Your task to perform on an android device: install app "Nova Launcher" Image 0: 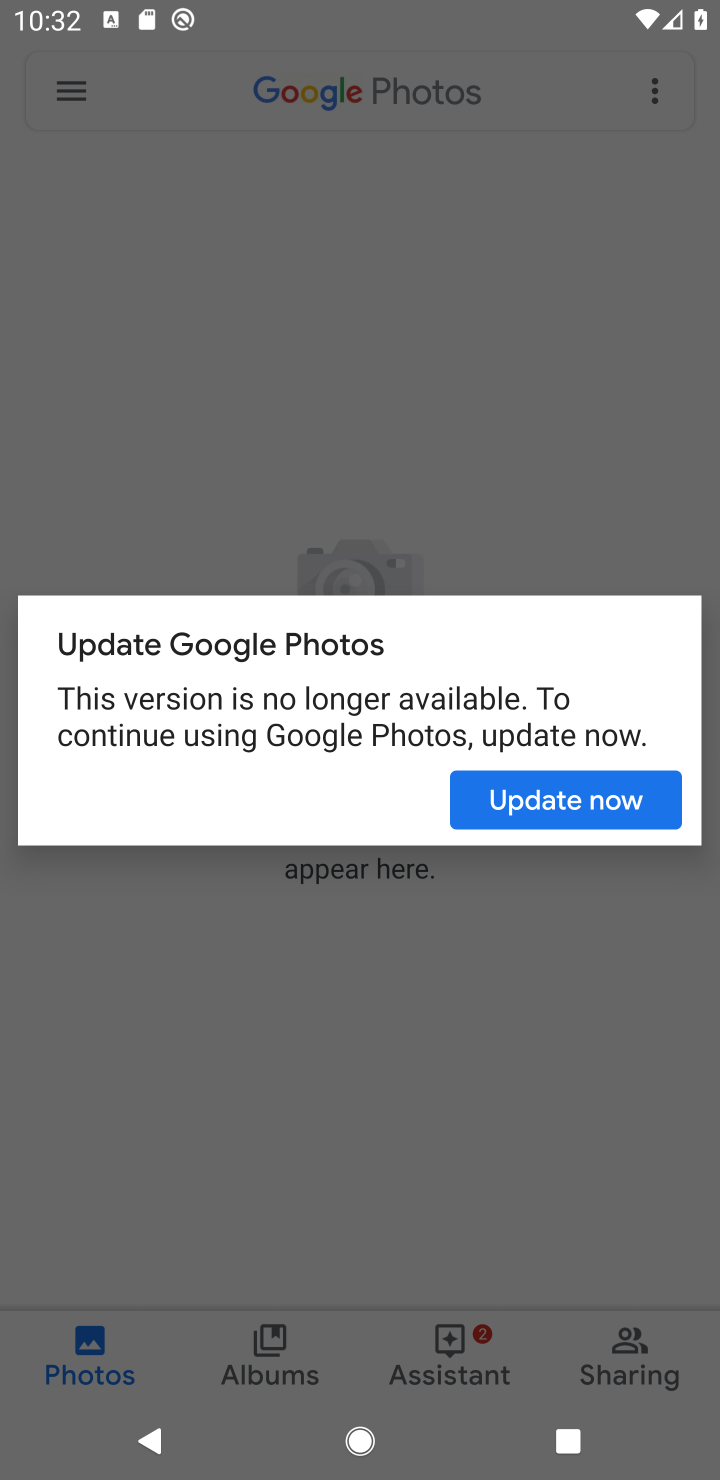
Step 0: press back button
Your task to perform on an android device: install app "Nova Launcher" Image 1: 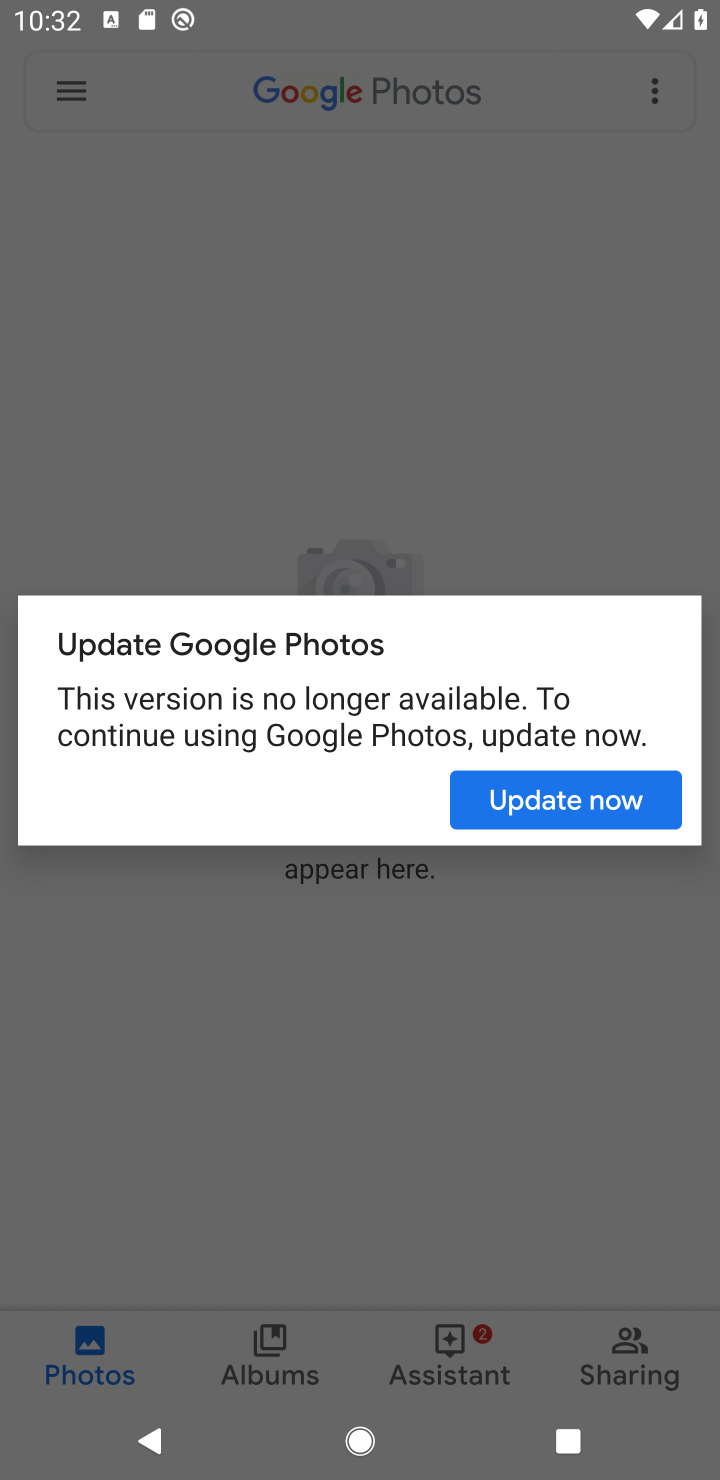
Step 1: press home button
Your task to perform on an android device: install app "Nova Launcher" Image 2: 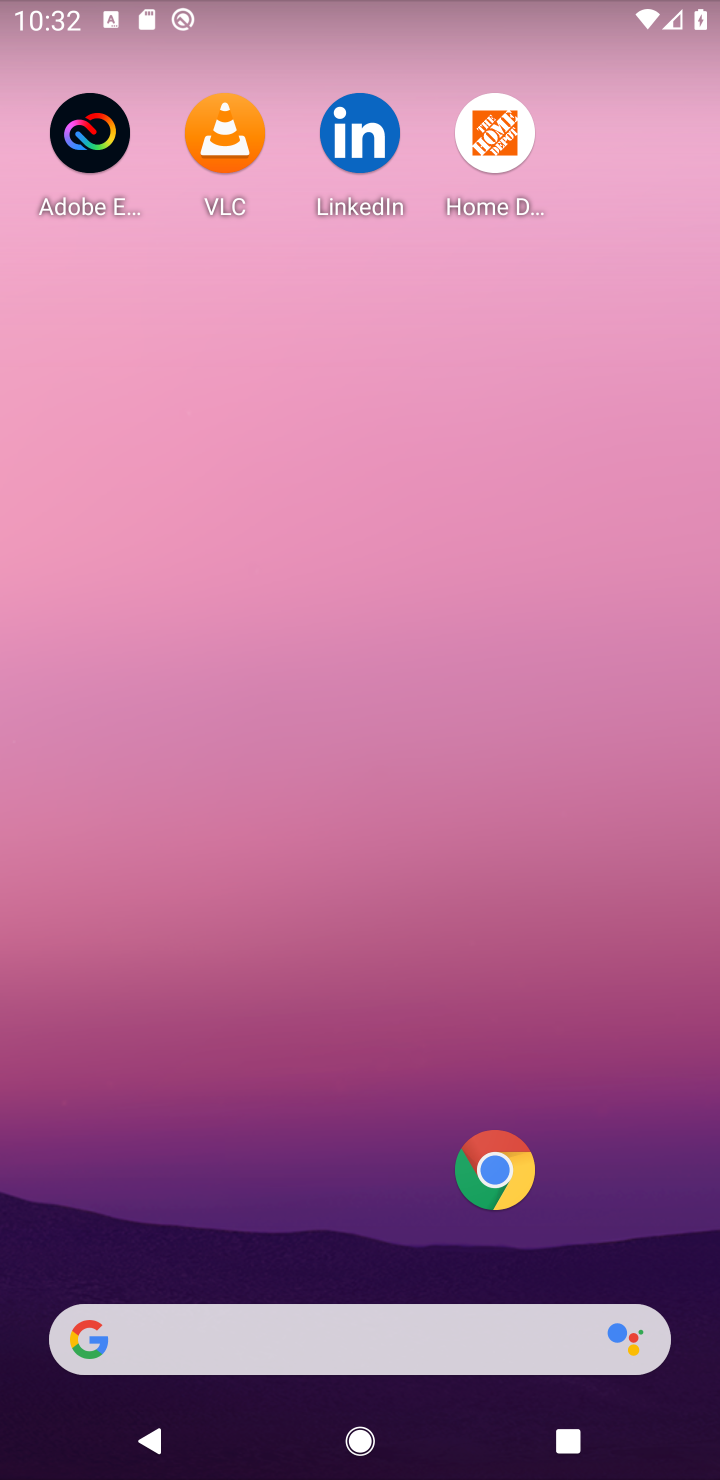
Step 2: drag from (315, 1205) to (468, 37)
Your task to perform on an android device: install app "Nova Launcher" Image 3: 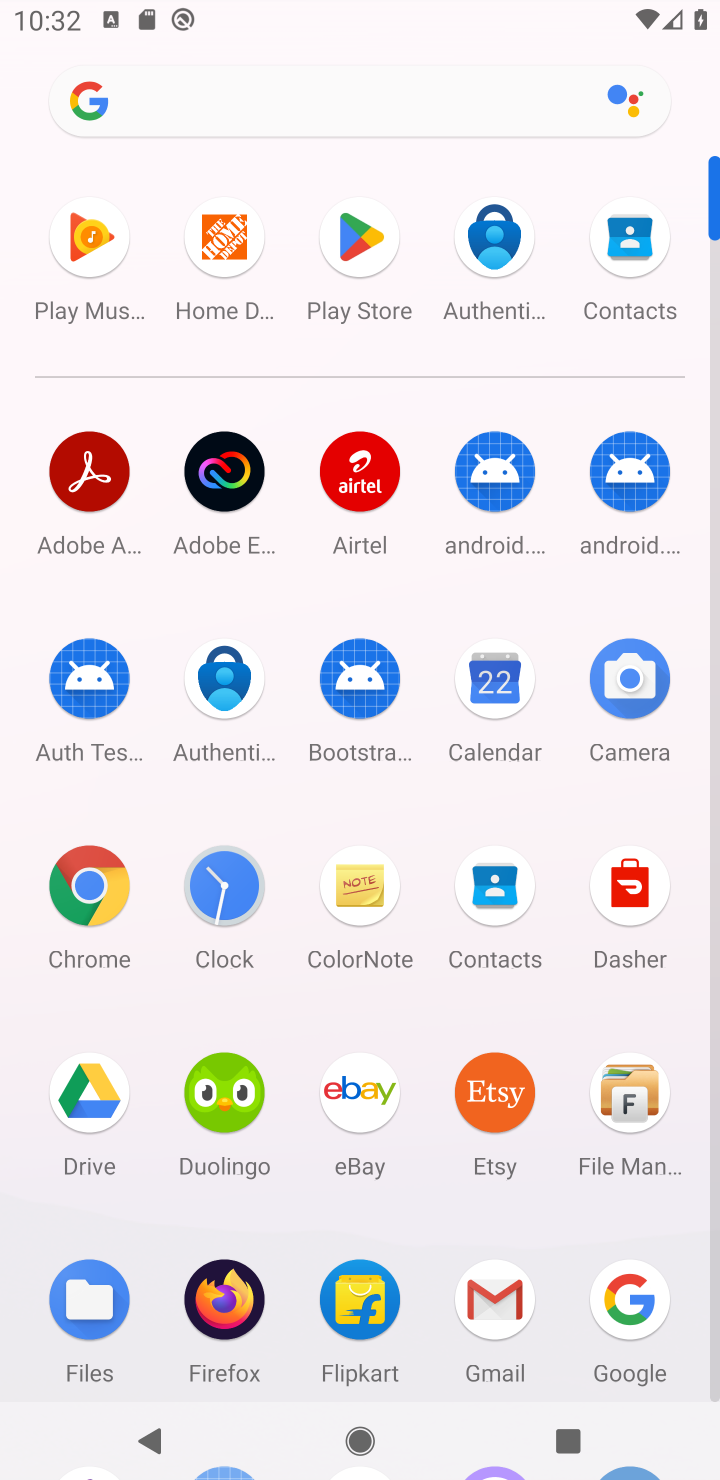
Step 3: click (335, 244)
Your task to perform on an android device: install app "Nova Launcher" Image 4: 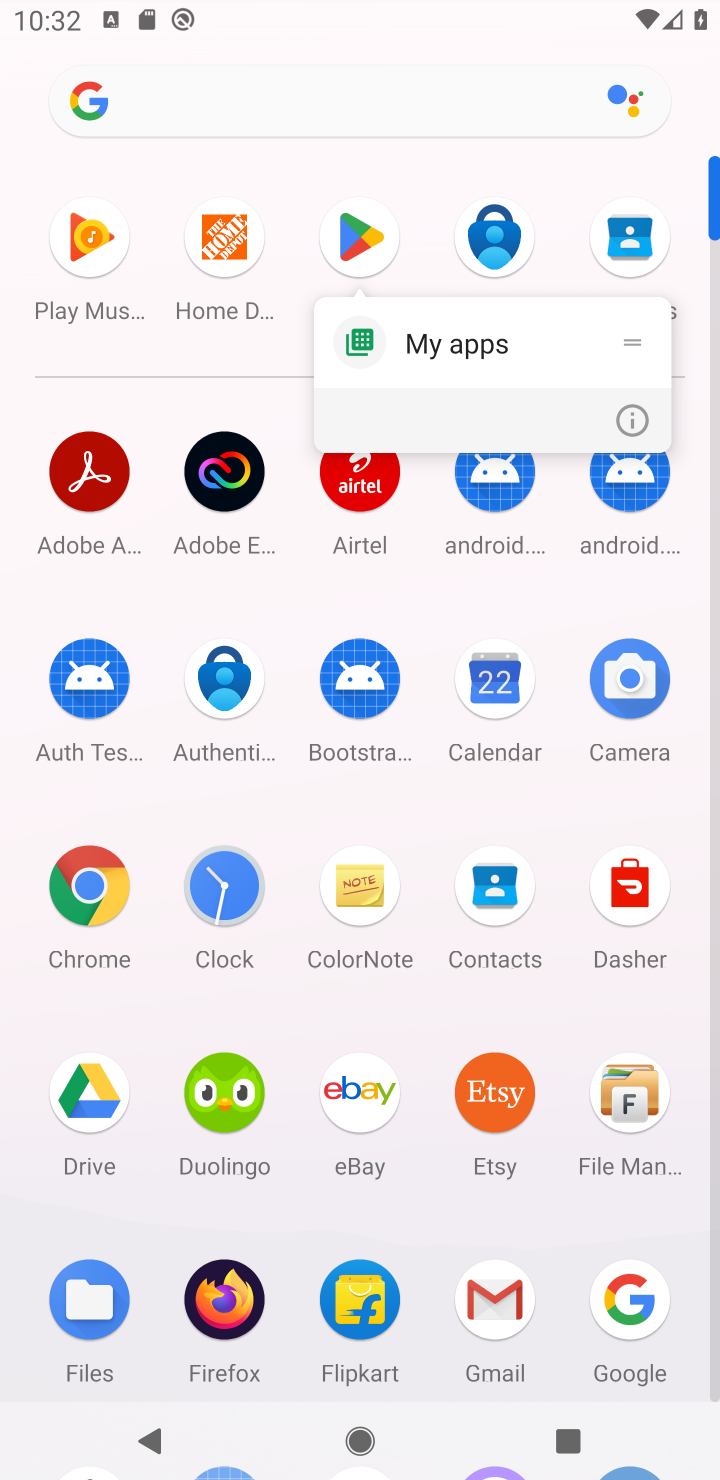
Step 4: click (361, 239)
Your task to perform on an android device: install app "Nova Launcher" Image 5: 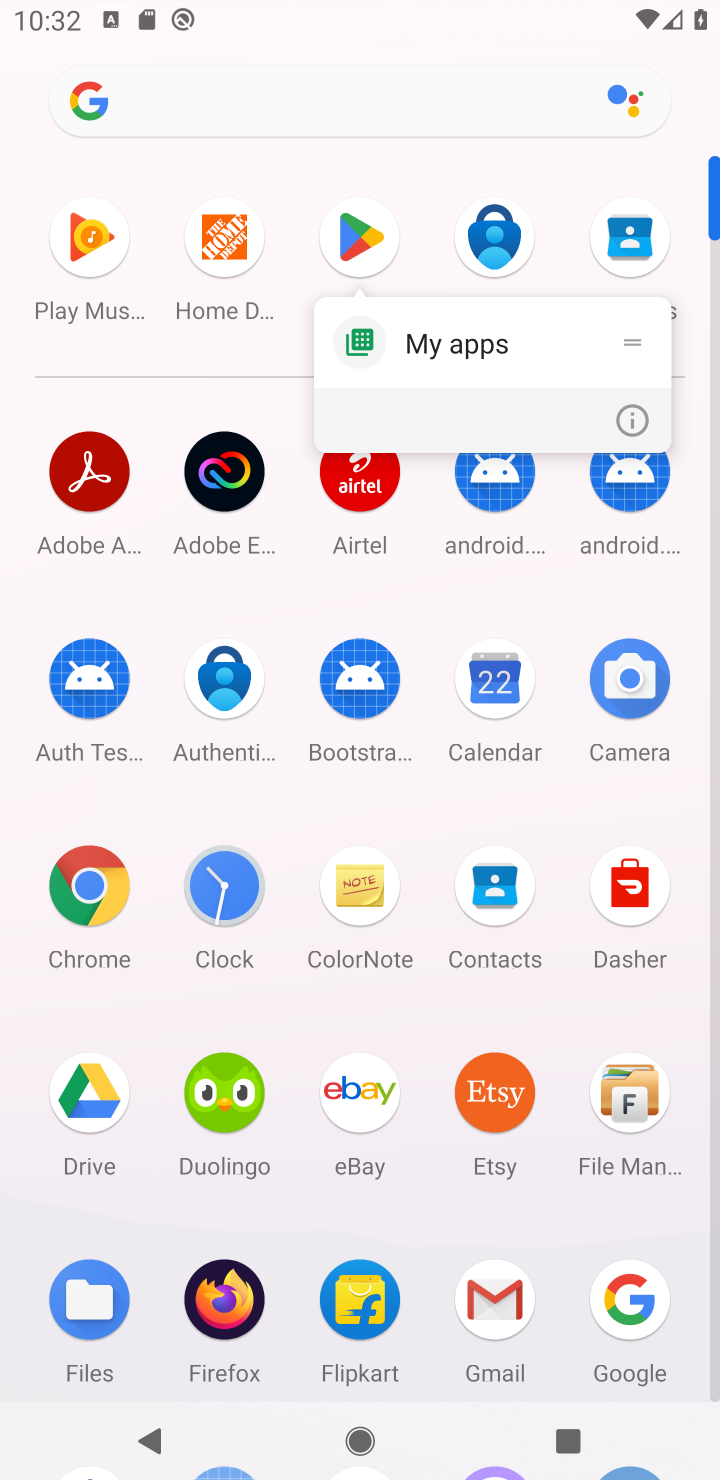
Step 5: click (355, 241)
Your task to perform on an android device: install app "Nova Launcher" Image 6: 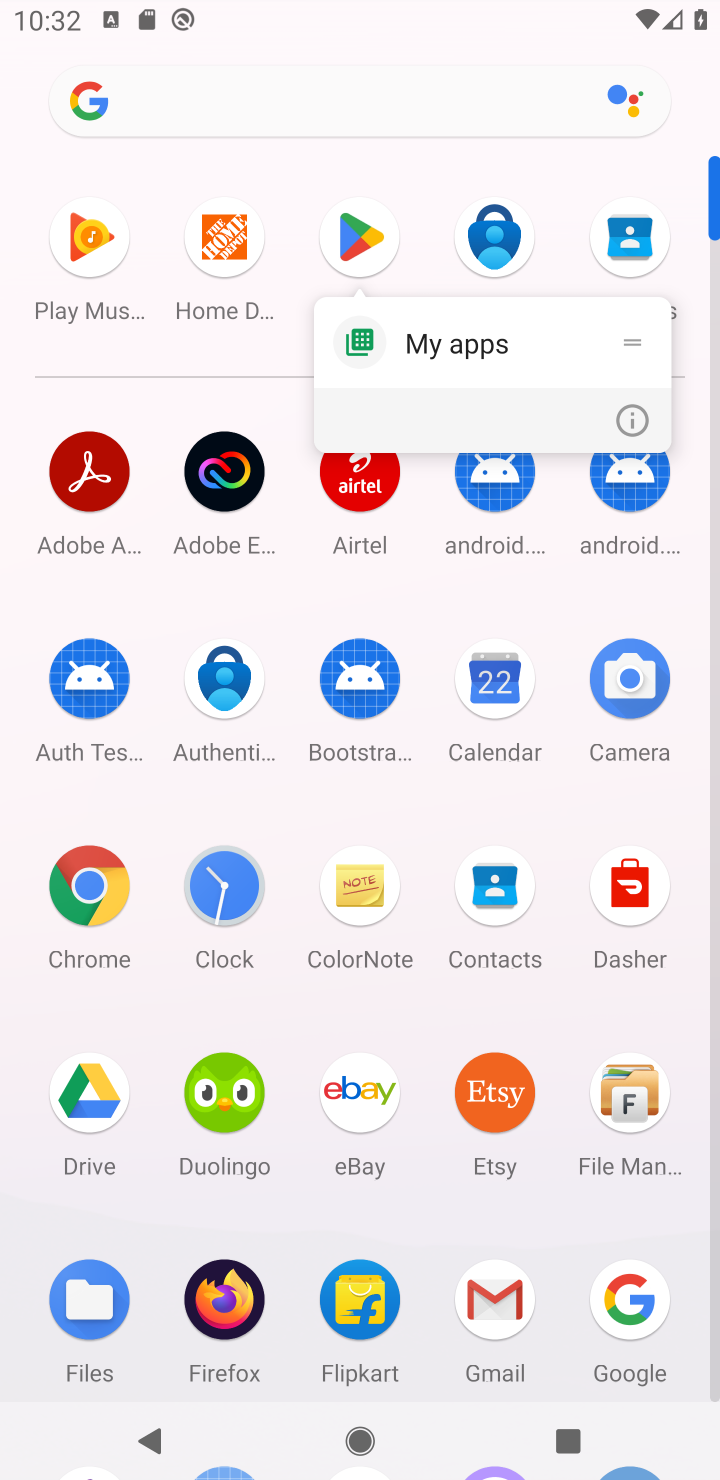
Step 6: click (362, 216)
Your task to perform on an android device: install app "Nova Launcher" Image 7: 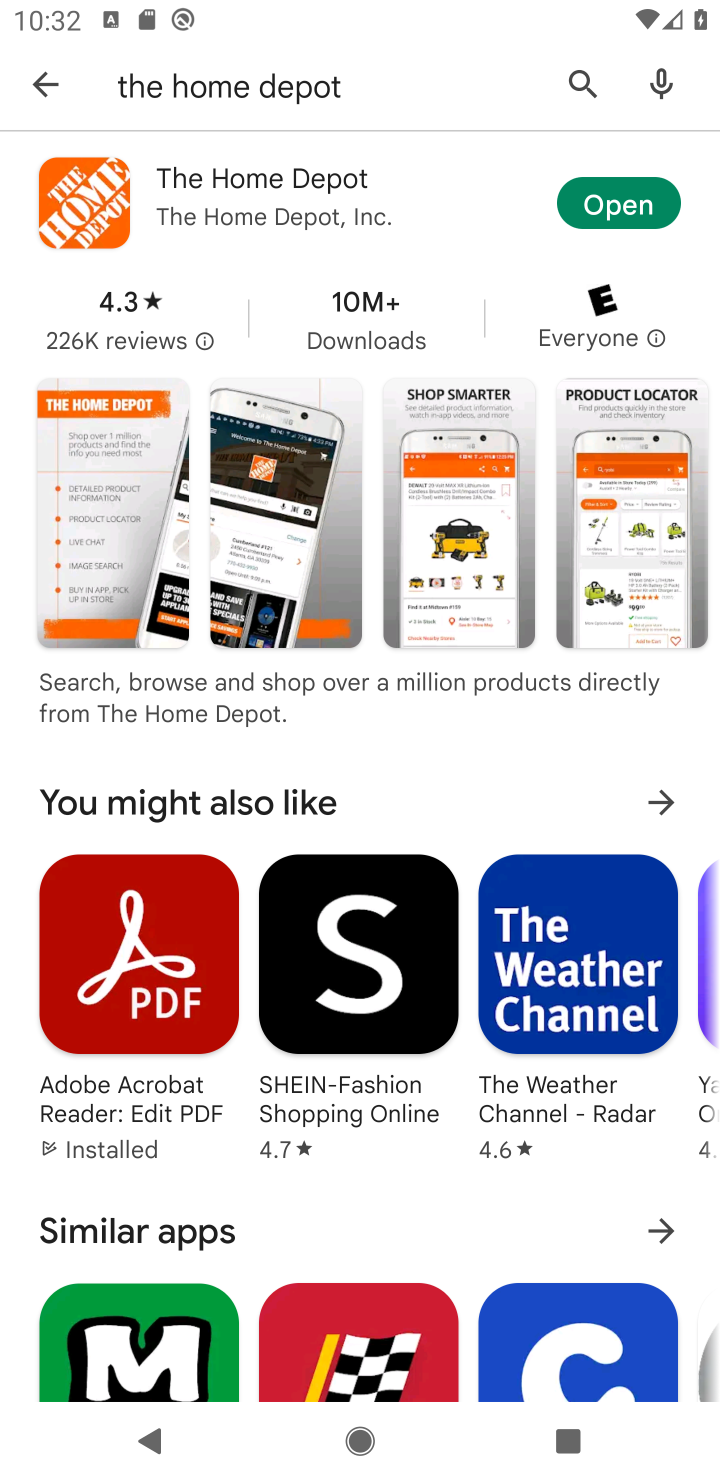
Step 7: click (586, 64)
Your task to perform on an android device: install app "Nova Launcher" Image 8: 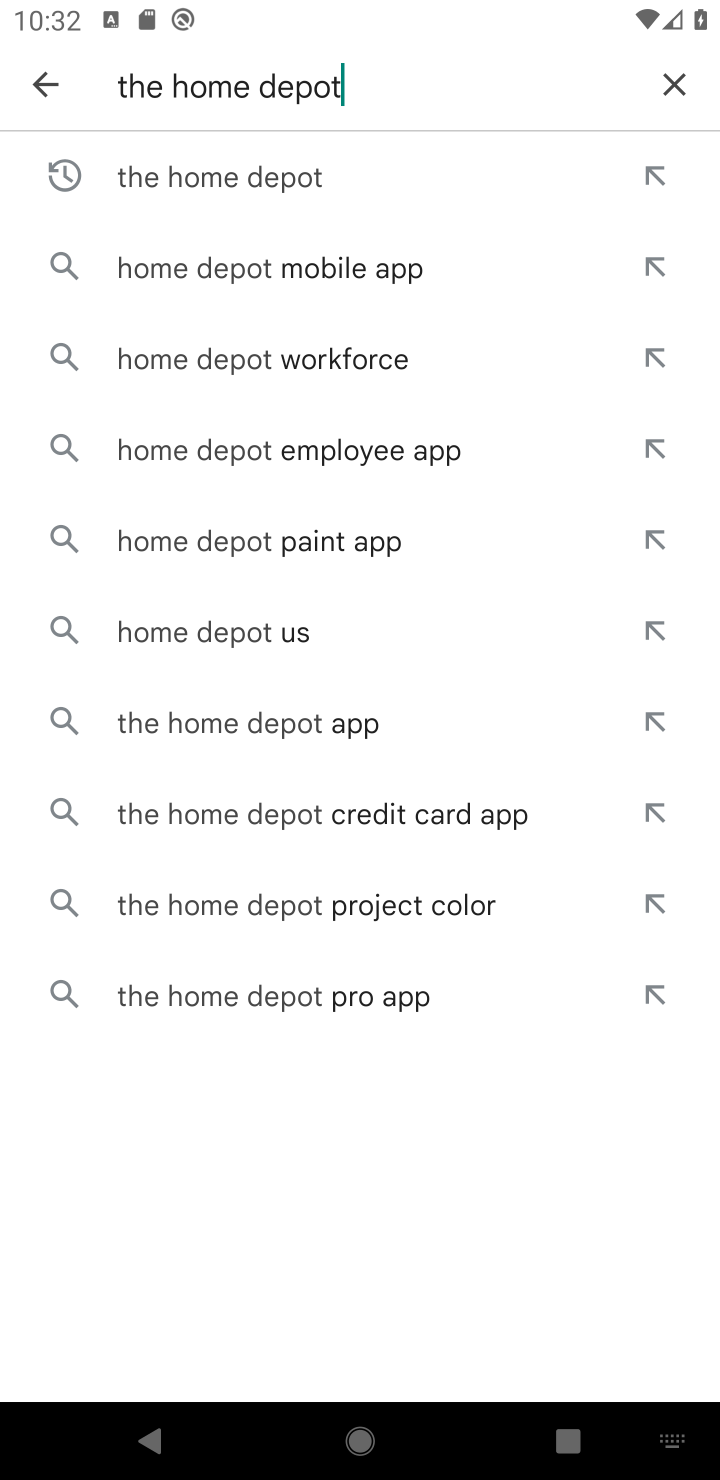
Step 8: click (679, 80)
Your task to perform on an android device: install app "Nova Launcher" Image 9: 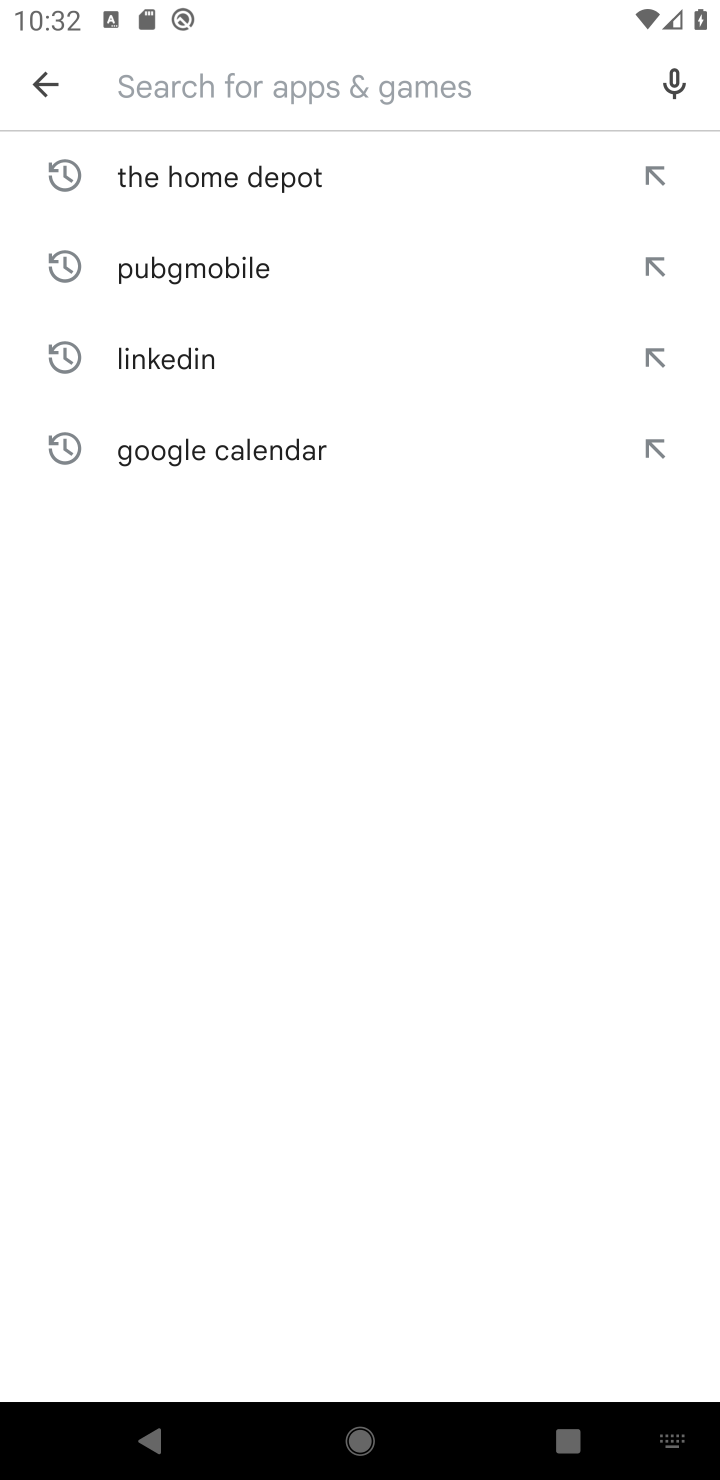
Step 9: click (249, 74)
Your task to perform on an android device: install app "Nova Launcher" Image 10: 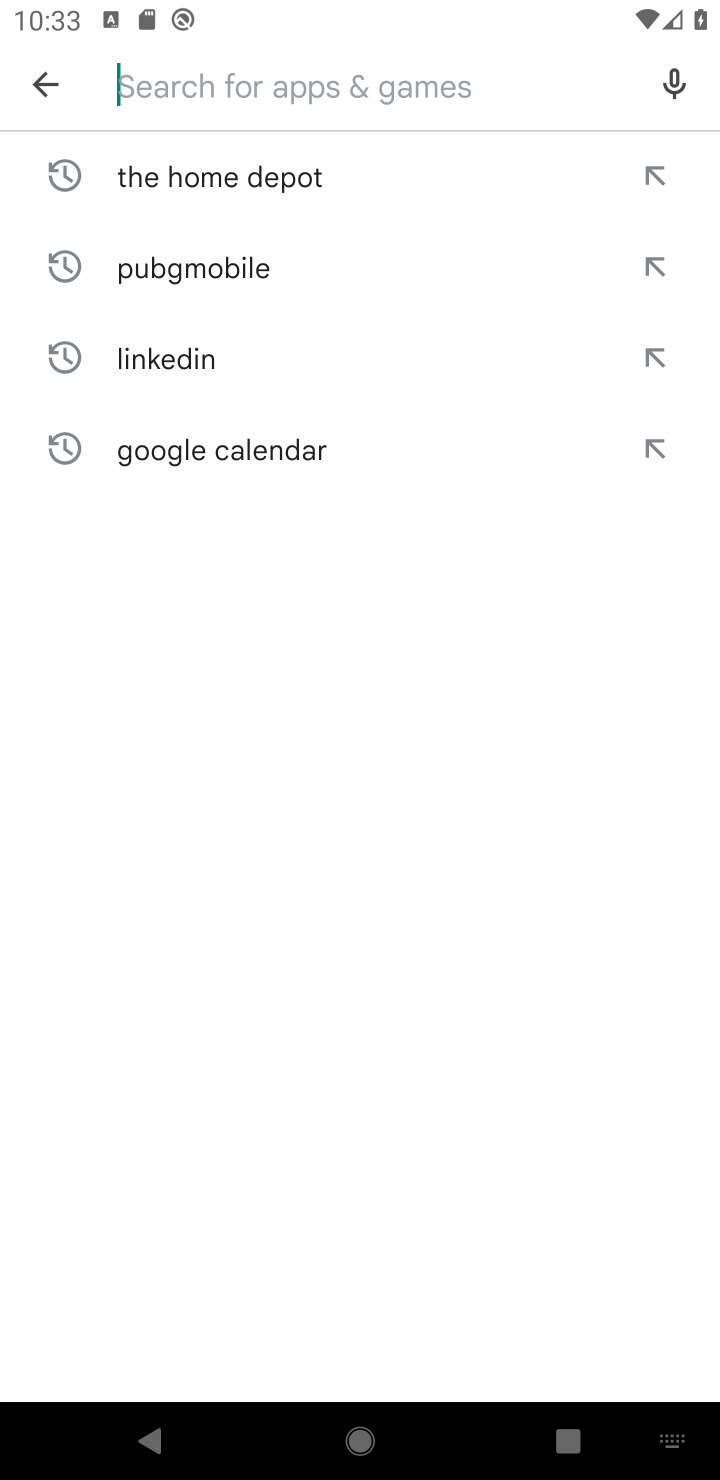
Step 10: click (396, 965)
Your task to perform on an android device: install app "Nova Launcher" Image 11: 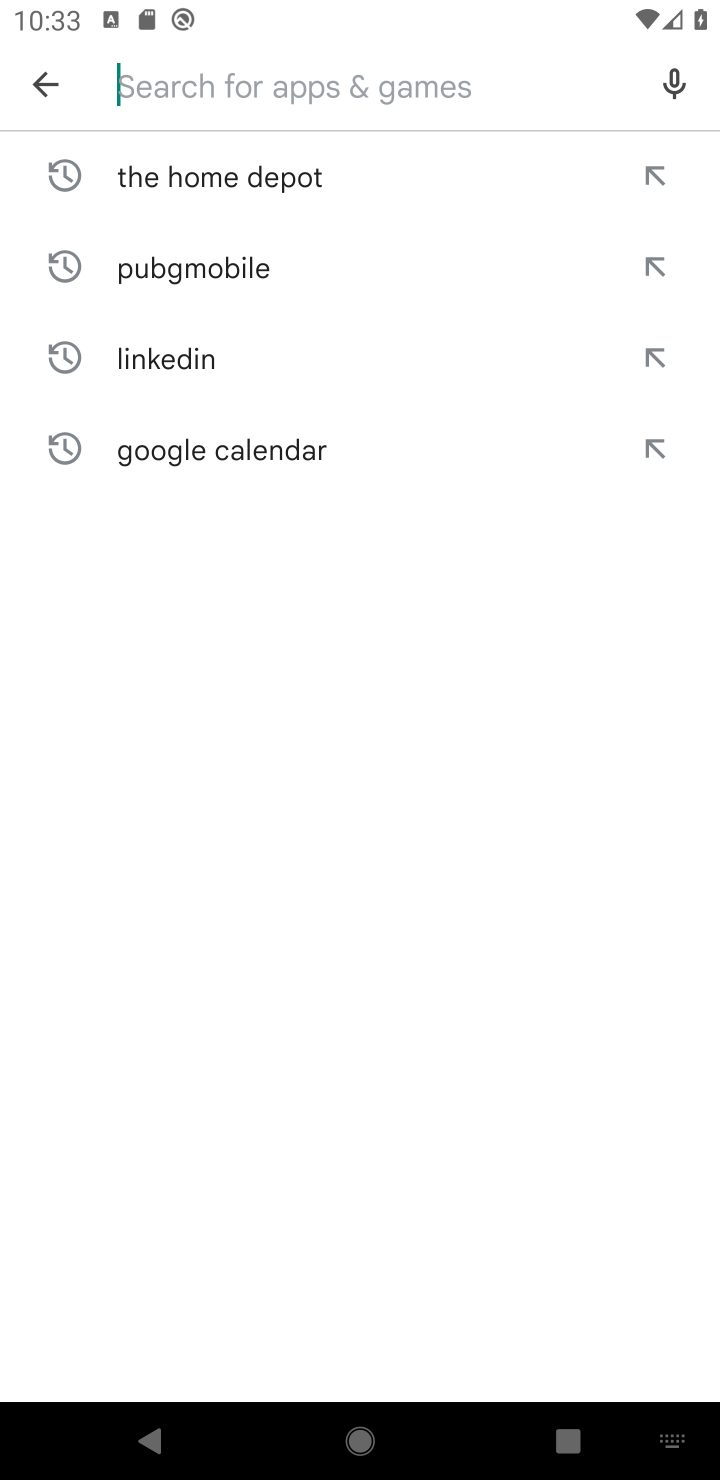
Step 11: type "Nova Launcher"
Your task to perform on an android device: install app "Nova Launcher" Image 12: 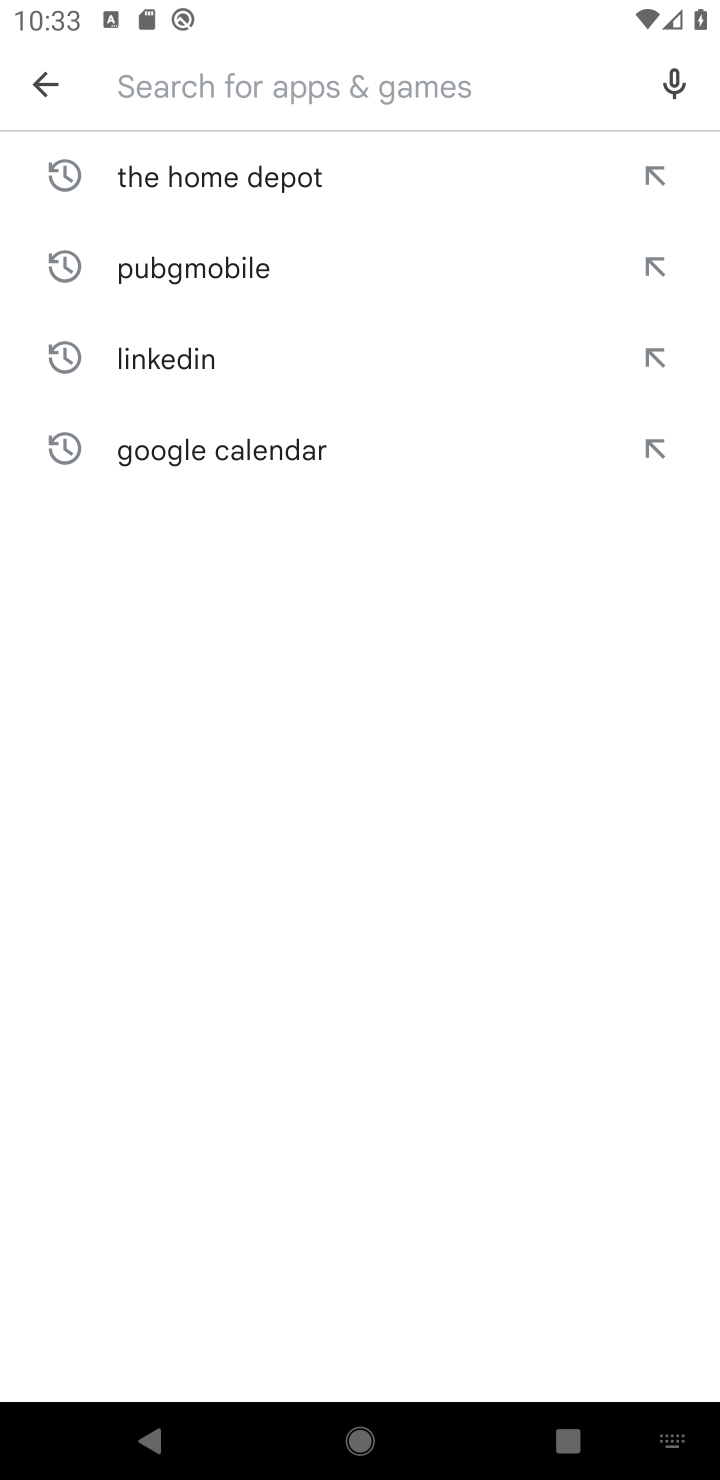
Step 12: click (396, 965)
Your task to perform on an android device: install app "Nova Launcher" Image 13: 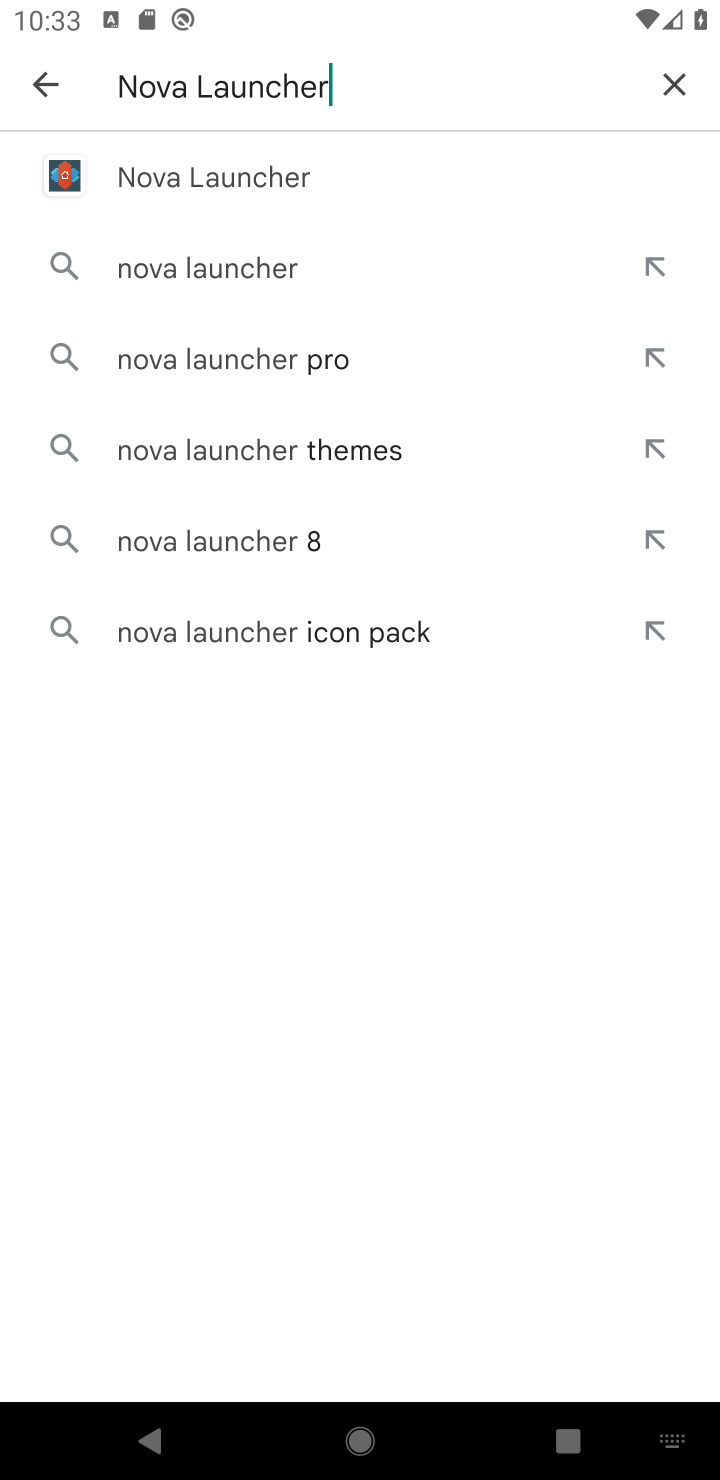
Step 13: click (198, 175)
Your task to perform on an android device: install app "Nova Launcher" Image 14: 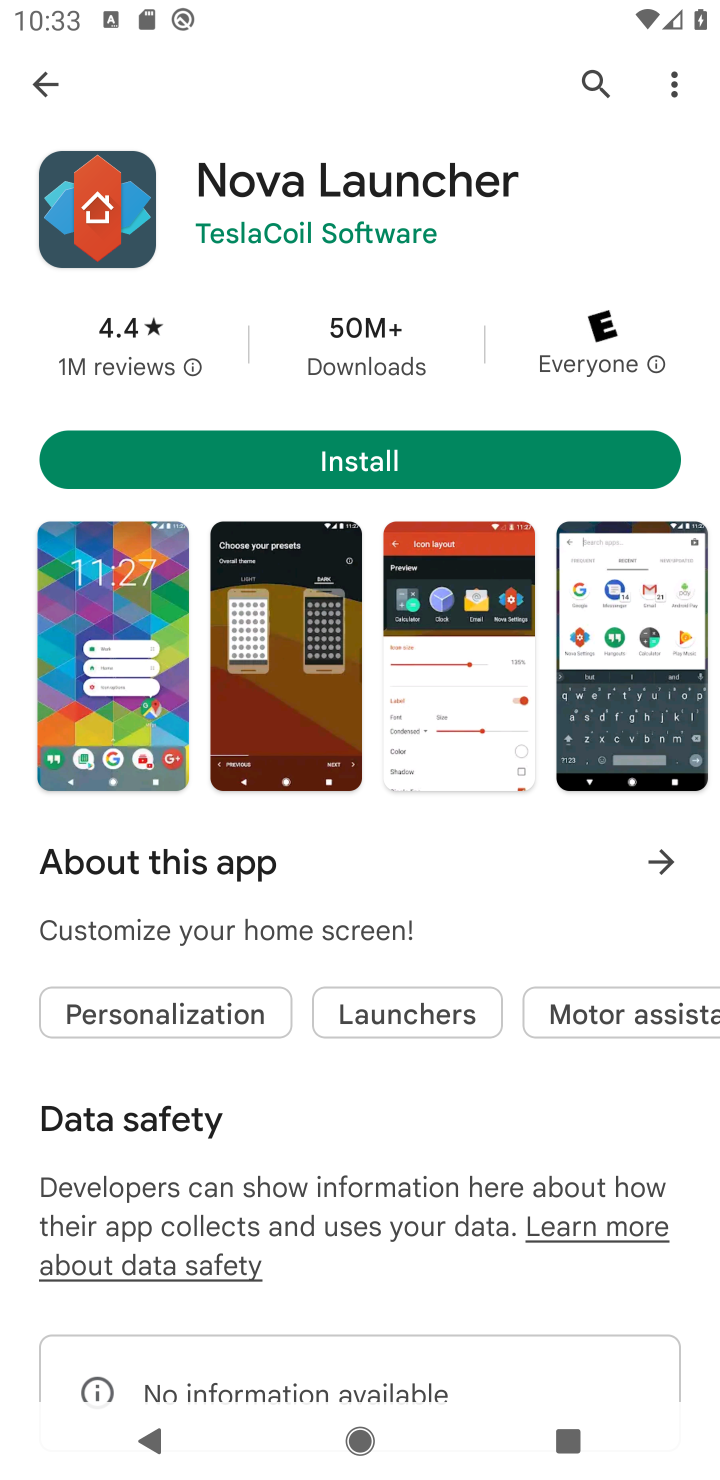
Step 14: click (325, 460)
Your task to perform on an android device: install app "Nova Launcher" Image 15: 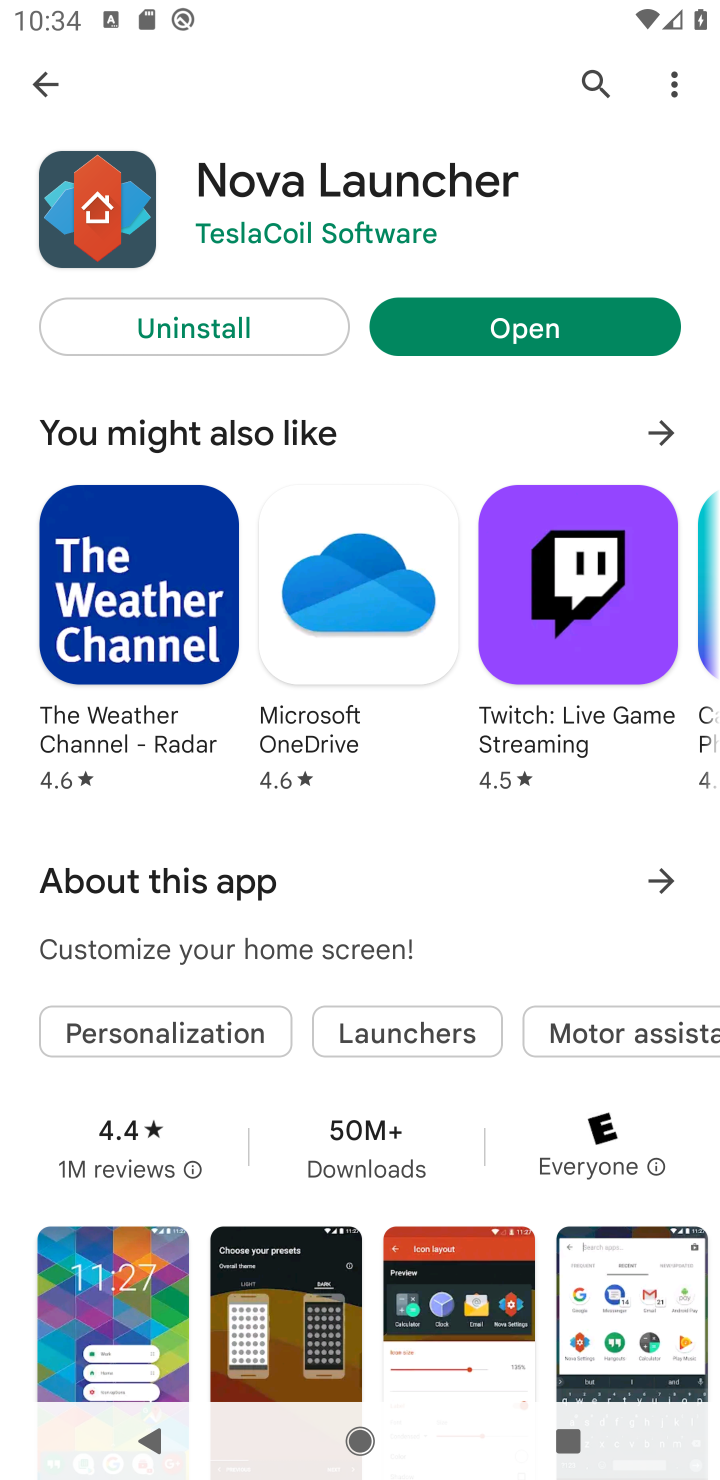
Step 15: task complete